Your task to perform on an android device: toggle show notifications on the lock screen Image 0: 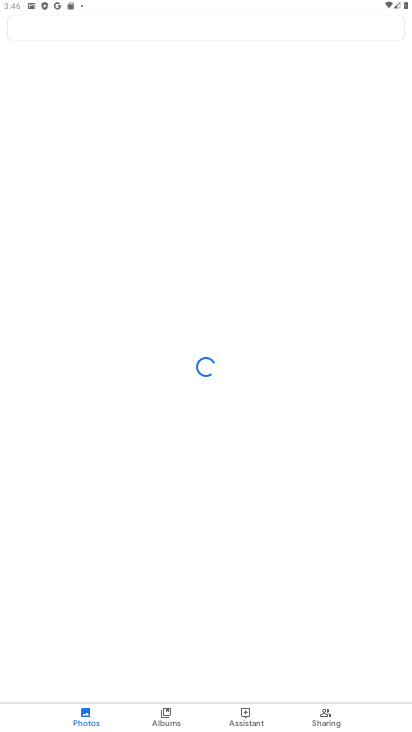
Step 0: press home button
Your task to perform on an android device: toggle show notifications on the lock screen Image 1: 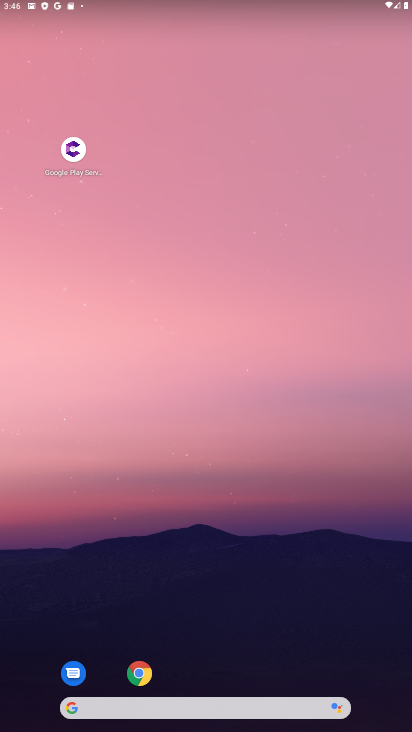
Step 1: drag from (256, 621) to (244, 110)
Your task to perform on an android device: toggle show notifications on the lock screen Image 2: 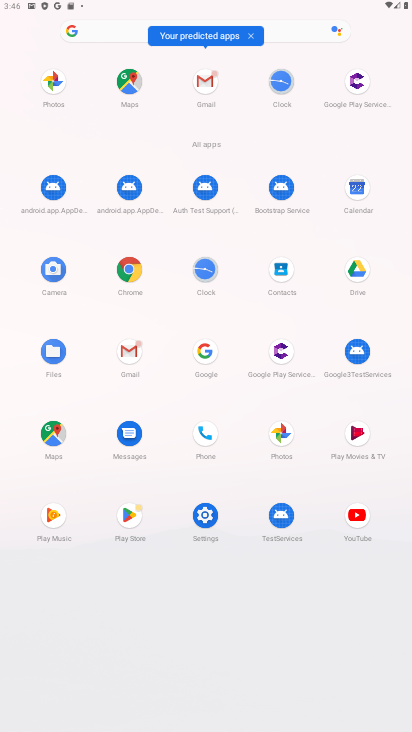
Step 2: click (194, 523)
Your task to perform on an android device: toggle show notifications on the lock screen Image 3: 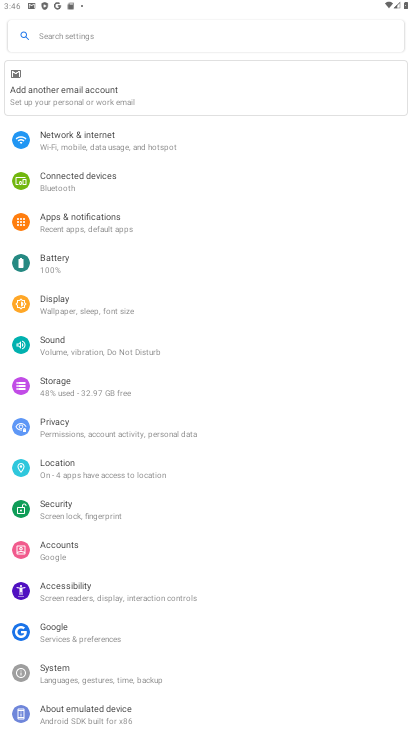
Step 3: click (95, 220)
Your task to perform on an android device: toggle show notifications on the lock screen Image 4: 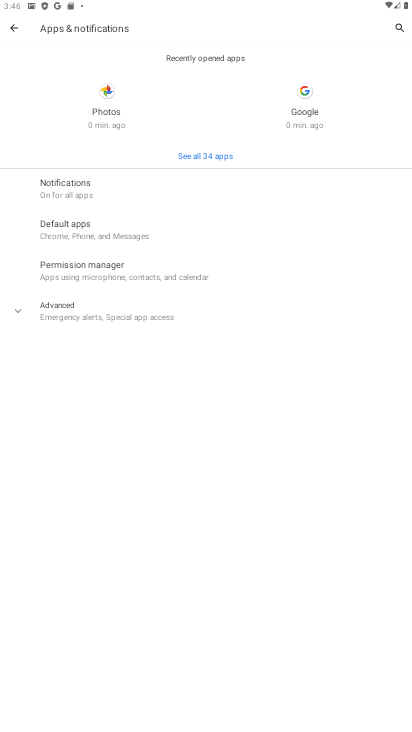
Step 4: click (86, 189)
Your task to perform on an android device: toggle show notifications on the lock screen Image 5: 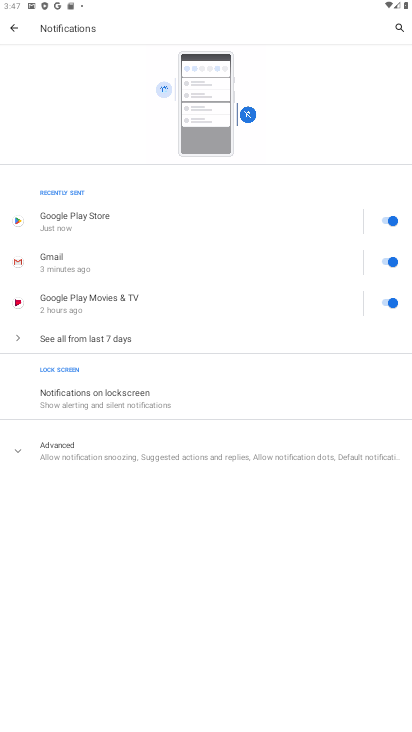
Step 5: click (101, 385)
Your task to perform on an android device: toggle show notifications on the lock screen Image 6: 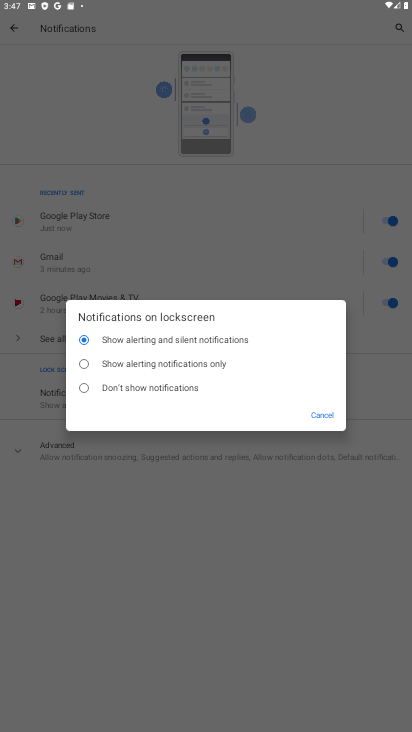
Step 6: click (130, 366)
Your task to perform on an android device: toggle show notifications on the lock screen Image 7: 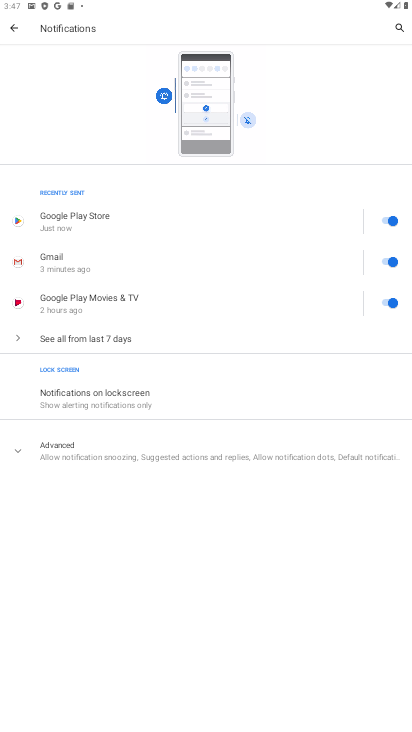
Step 7: task complete